Your task to perform on an android device: allow notifications from all sites in the chrome app Image 0: 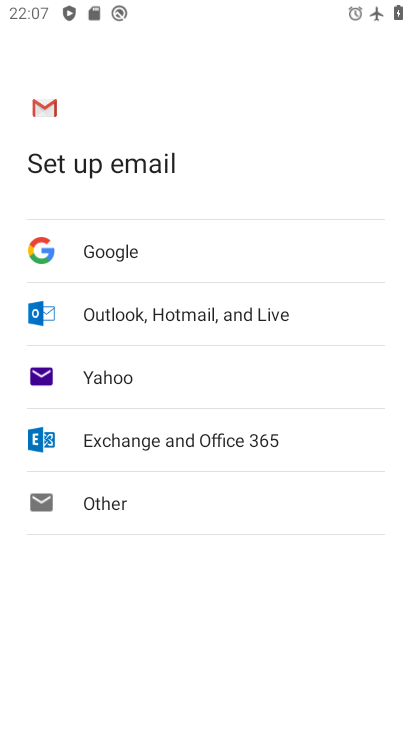
Step 0: press home button
Your task to perform on an android device: allow notifications from all sites in the chrome app Image 1: 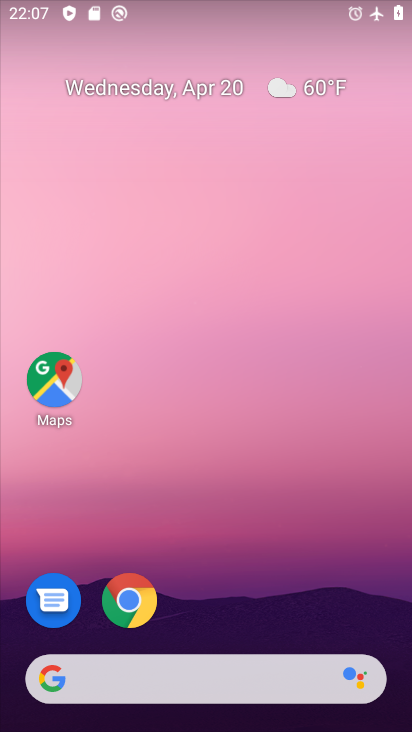
Step 1: drag from (201, 582) to (205, 56)
Your task to perform on an android device: allow notifications from all sites in the chrome app Image 2: 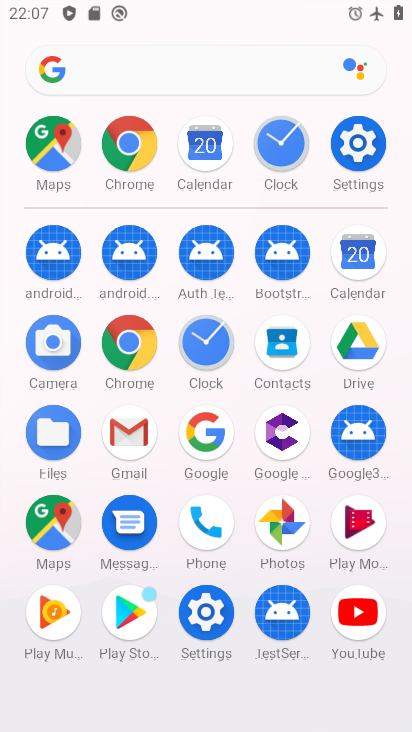
Step 2: click (142, 334)
Your task to perform on an android device: allow notifications from all sites in the chrome app Image 3: 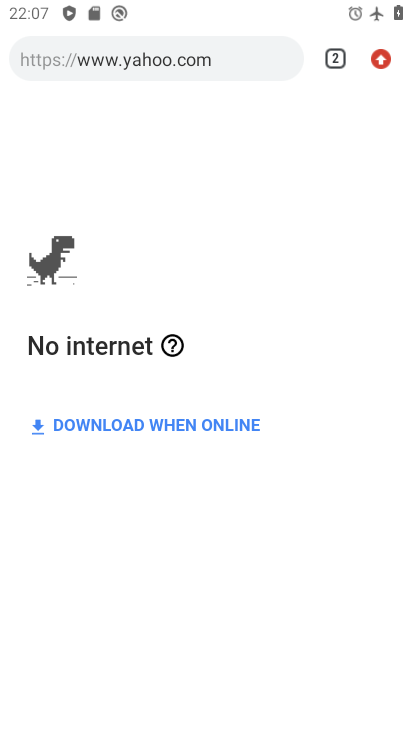
Step 3: drag from (382, 50) to (186, 623)
Your task to perform on an android device: allow notifications from all sites in the chrome app Image 4: 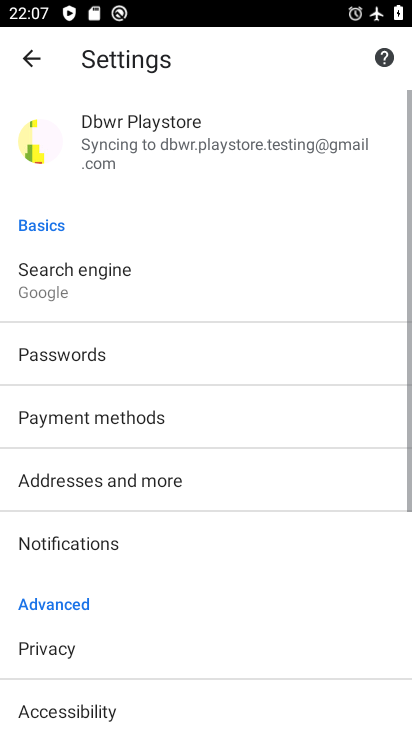
Step 4: drag from (155, 618) to (155, 136)
Your task to perform on an android device: allow notifications from all sites in the chrome app Image 5: 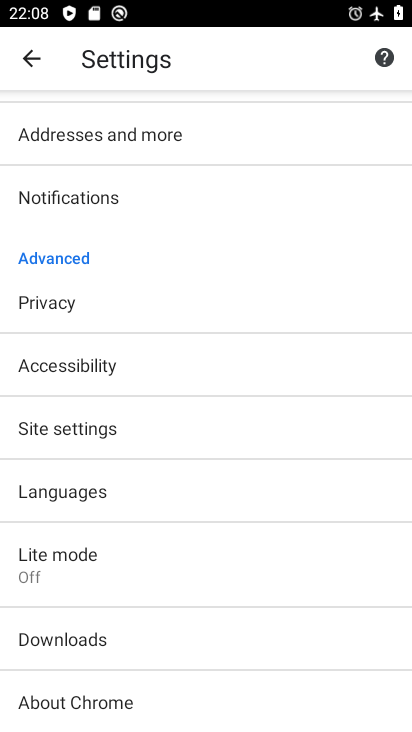
Step 5: click (60, 433)
Your task to perform on an android device: allow notifications from all sites in the chrome app Image 6: 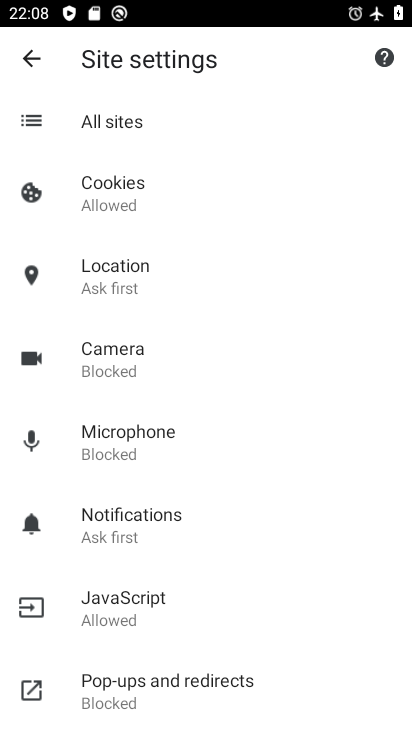
Step 6: click (134, 526)
Your task to perform on an android device: allow notifications from all sites in the chrome app Image 7: 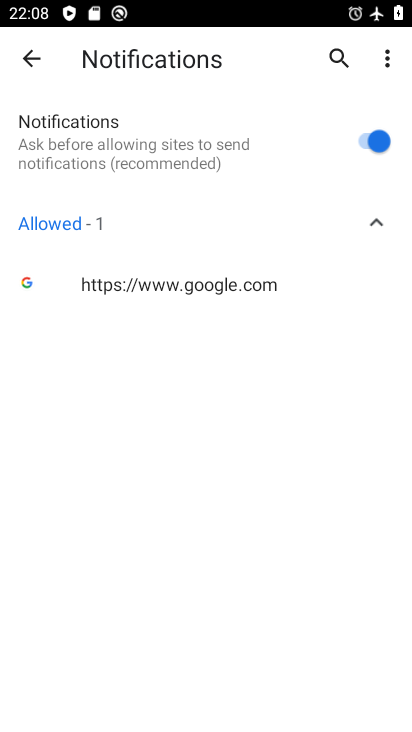
Step 7: task complete